Your task to perform on an android device: uninstall "Mercado Libre" Image 0: 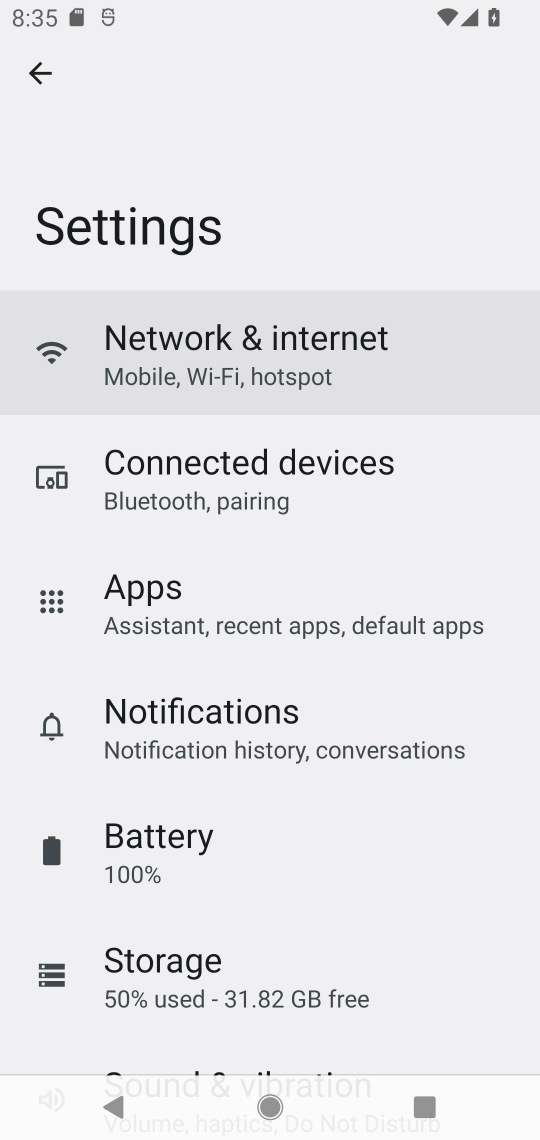
Step 0: press home button
Your task to perform on an android device: uninstall "Mercado Libre" Image 1: 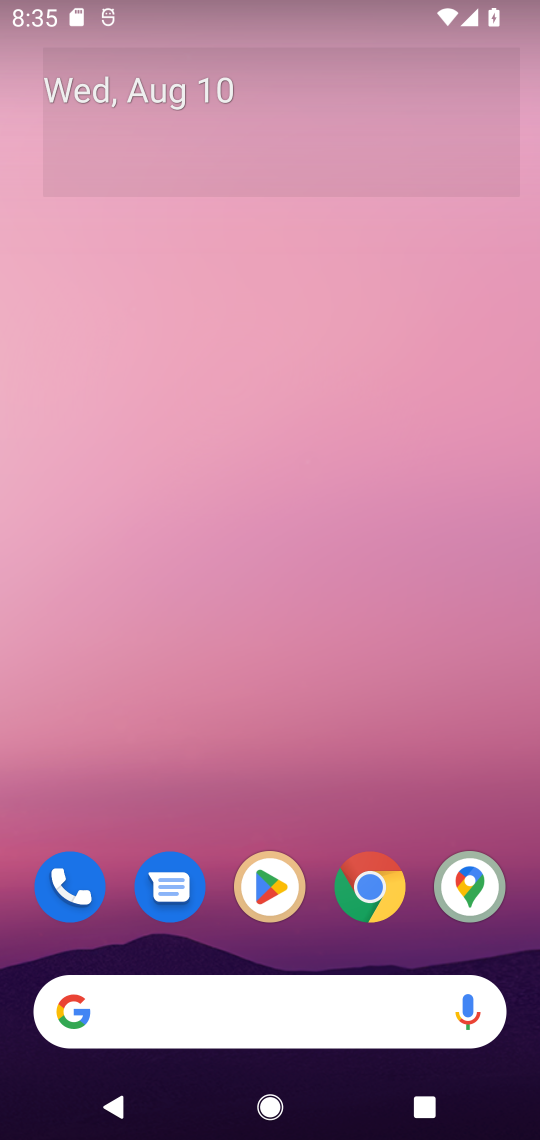
Step 1: drag from (333, 660) to (339, 248)
Your task to perform on an android device: uninstall "Mercado Libre" Image 2: 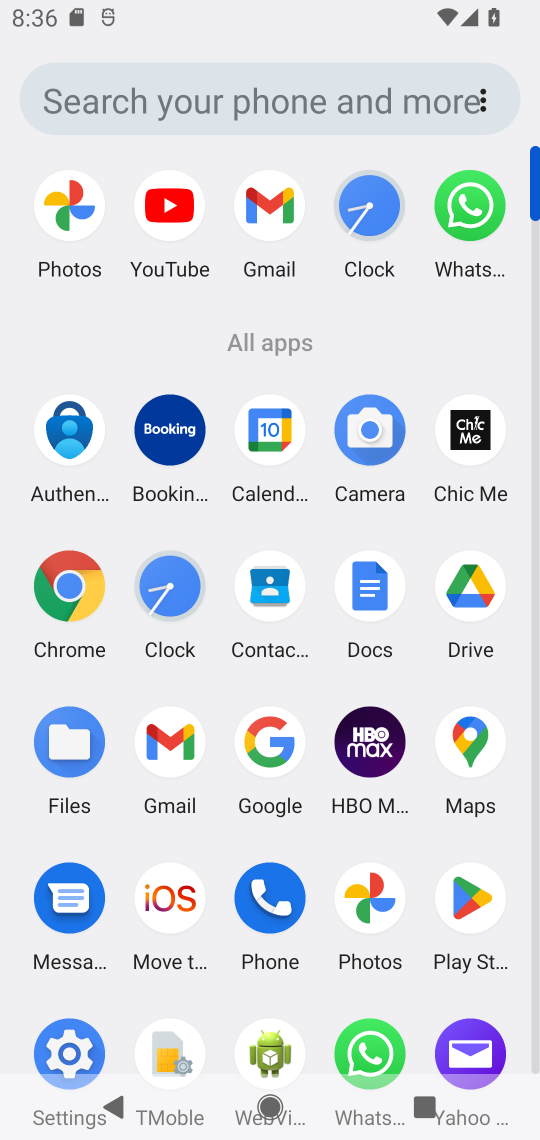
Step 2: click (451, 918)
Your task to perform on an android device: uninstall "Mercado Libre" Image 3: 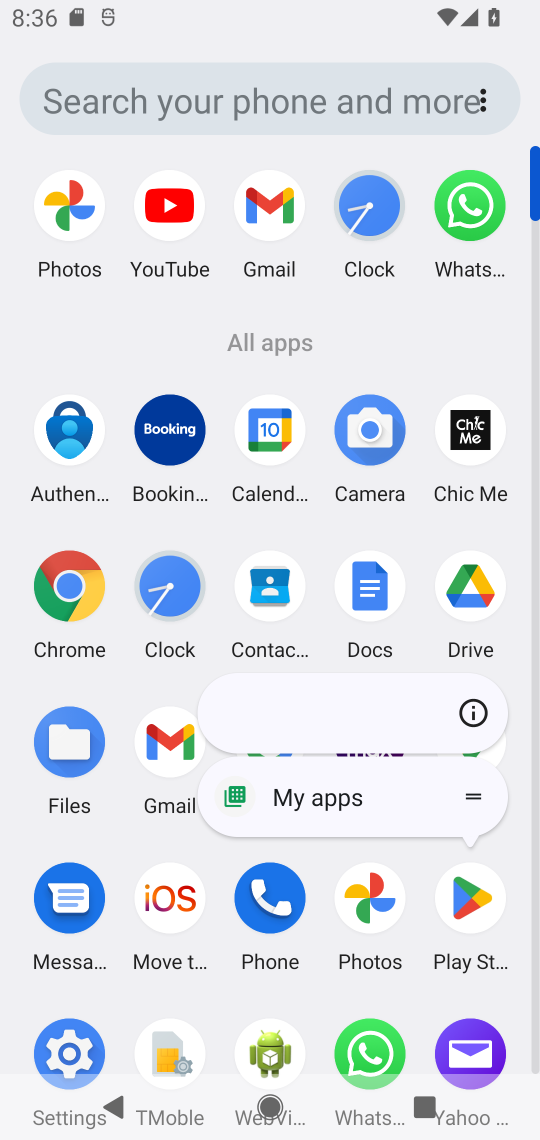
Step 3: click (451, 918)
Your task to perform on an android device: uninstall "Mercado Libre" Image 4: 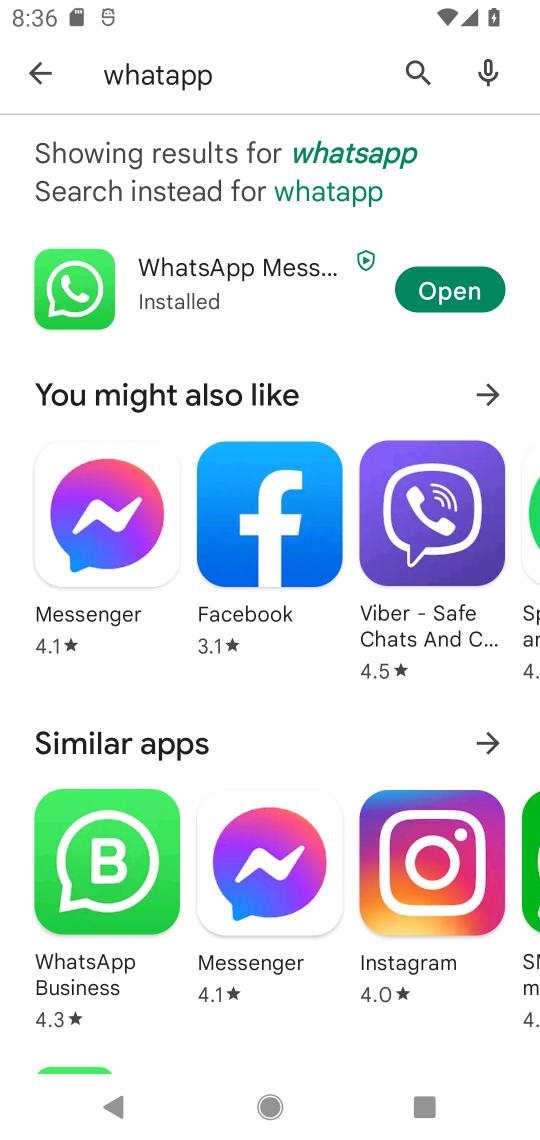
Step 4: click (397, 91)
Your task to perform on an android device: uninstall "Mercado Libre" Image 5: 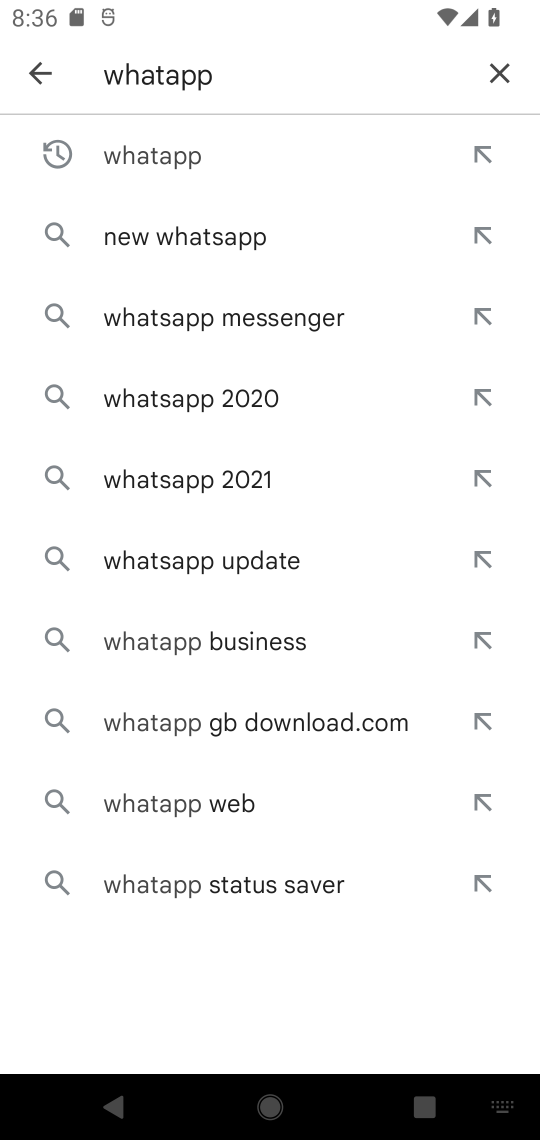
Step 5: click (489, 74)
Your task to perform on an android device: uninstall "Mercado Libre" Image 6: 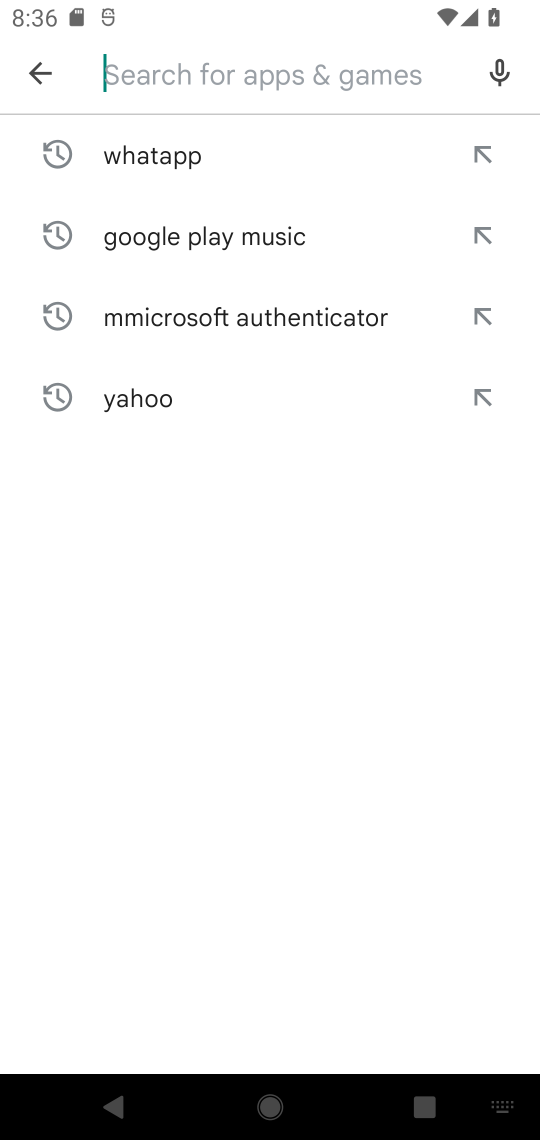
Step 6: type "mercado liber"
Your task to perform on an android device: uninstall "Mercado Libre" Image 7: 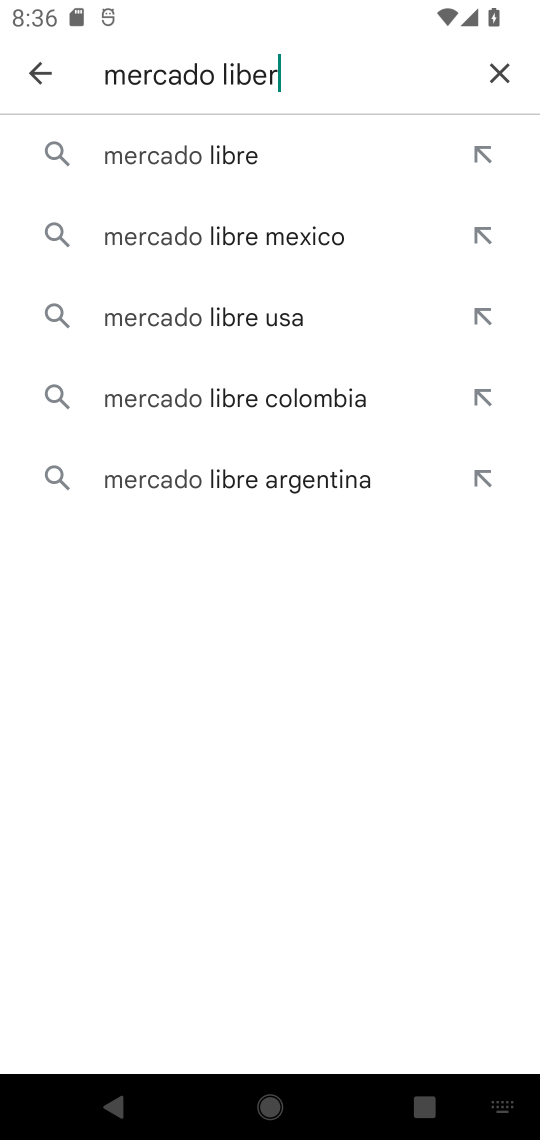
Step 7: click (217, 168)
Your task to perform on an android device: uninstall "Mercado Libre" Image 8: 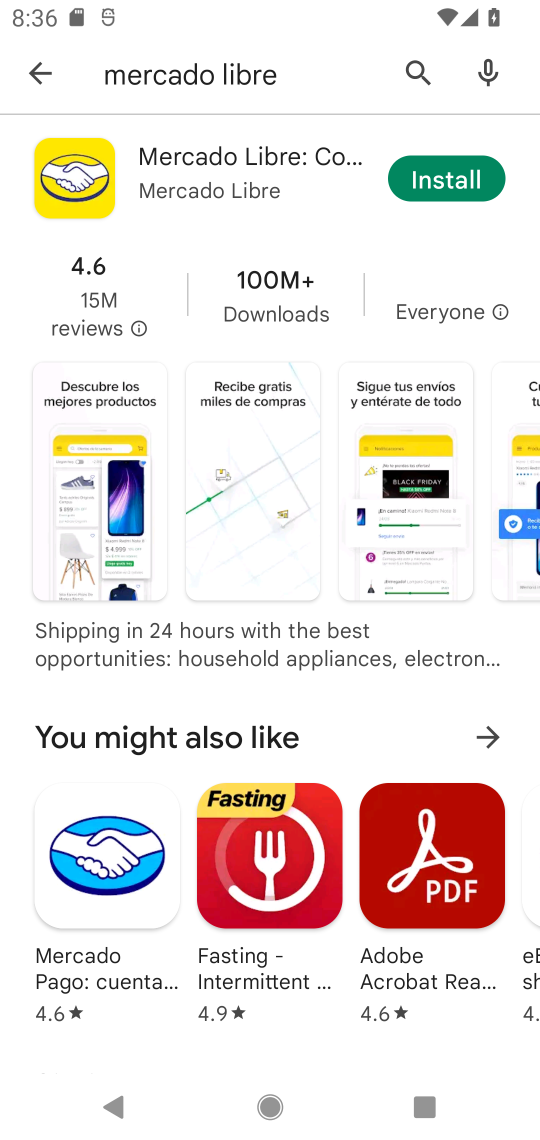
Step 8: click (408, 180)
Your task to perform on an android device: uninstall "Mercado Libre" Image 9: 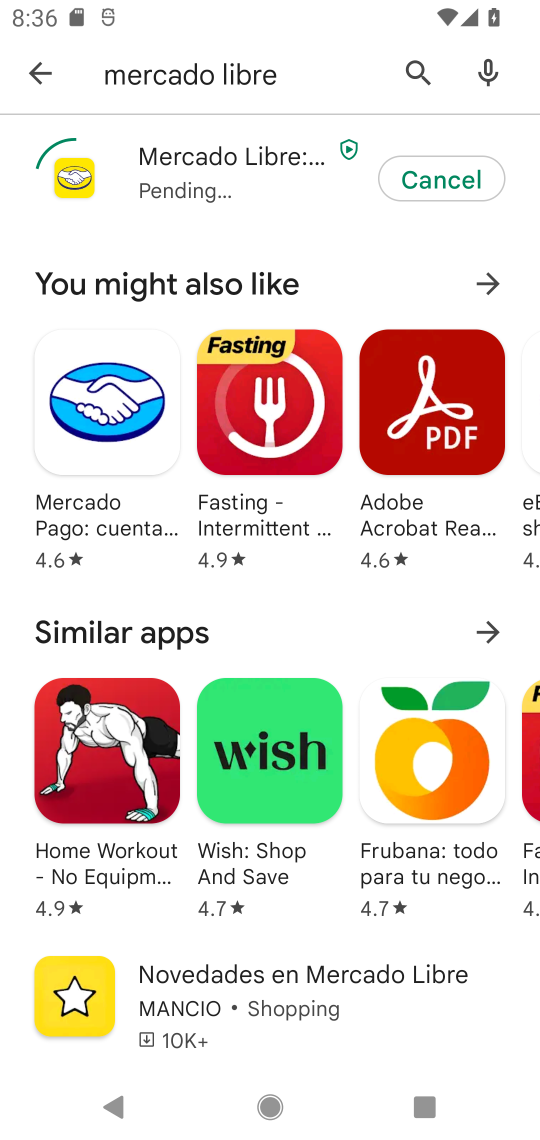
Step 9: task complete